Your task to perform on an android device: Go to Android settings Image 0: 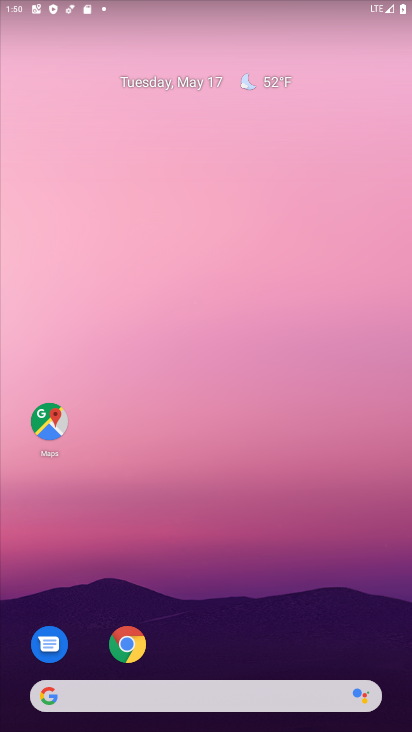
Step 0: drag from (197, 685) to (196, 180)
Your task to perform on an android device: Go to Android settings Image 1: 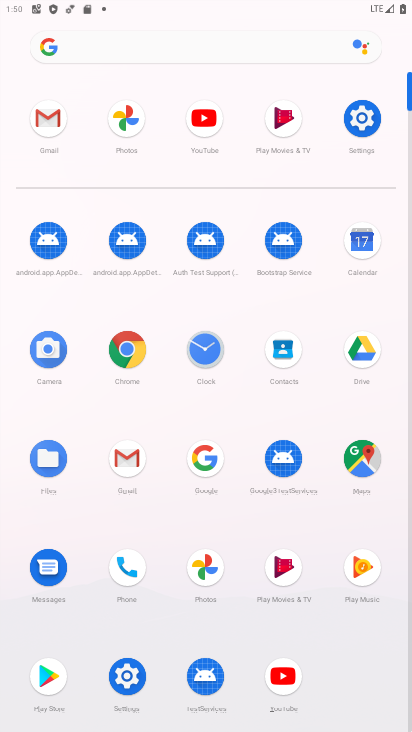
Step 1: click (370, 129)
Your task to perform on an android device: Go to Android settings Image 2: 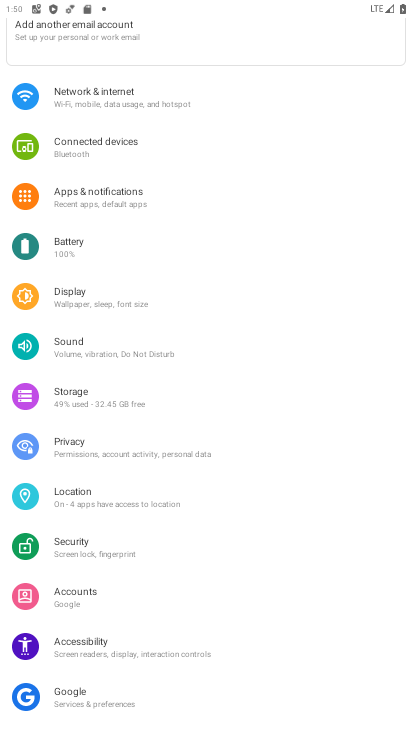
Step 2: task complete